Your task to perform on an android device: turn off airplane mode Image 0: 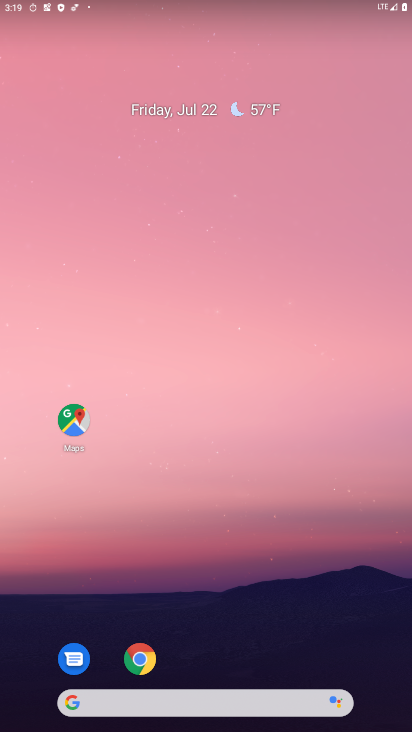
Step 0: drag from (325, 626) to (239, 148)
Your task to perform on an android device: turn off airplane mode Image 1: 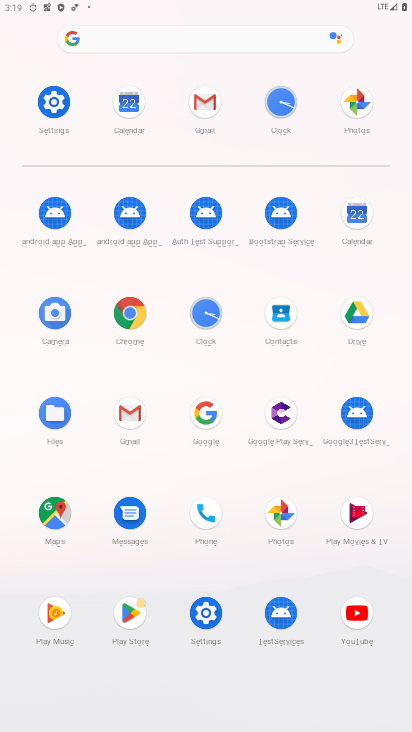
Step 1: click (45, 113)
Your task to perform on an android device: turn off airplane mode Image 2: 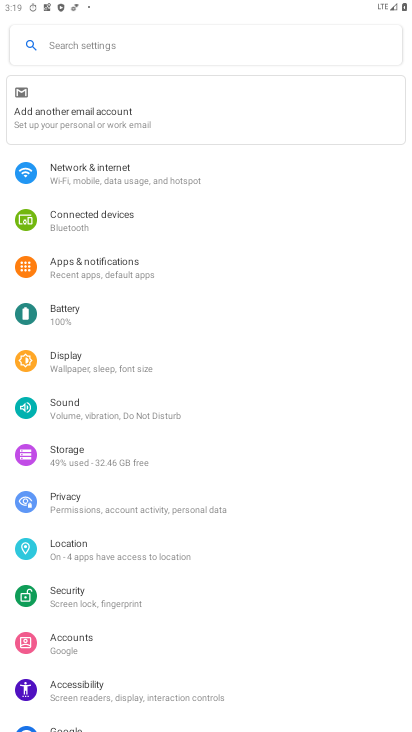
Step 2: click (86, 170)
Your task to perform on an android device: turn off airplane mode Image 3: 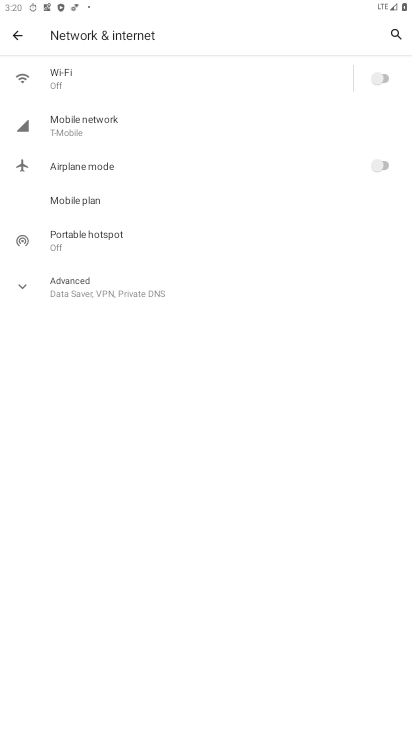
Step 3: task complete